Your task to perform on an android device: turn on priority inbox in the gmail app Image 0: 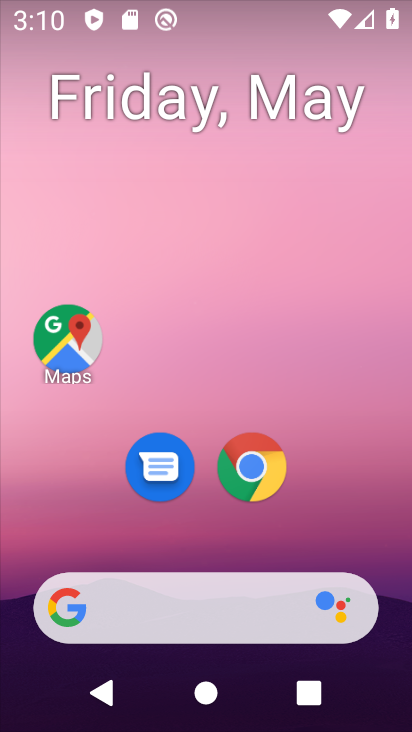
Step 0: drag from (359, 472) to (374, 117)
Your task to perform on an android device: turn on priority inbox in the gmail app Image 1: 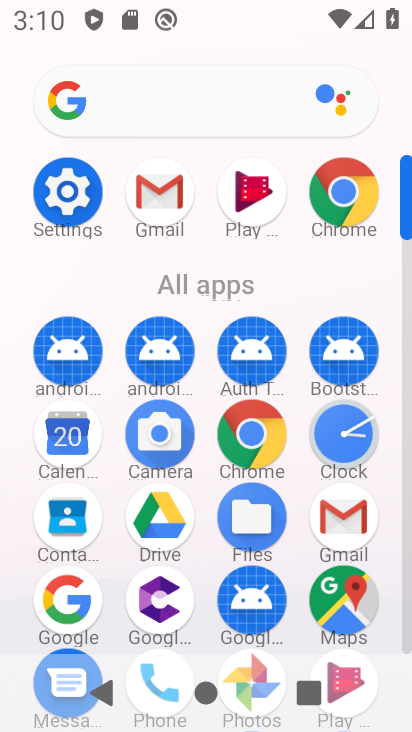
Step 1: click (162, 208)
Your task to perform on an android device: turn on priority inbox in the gmail app Image 2: 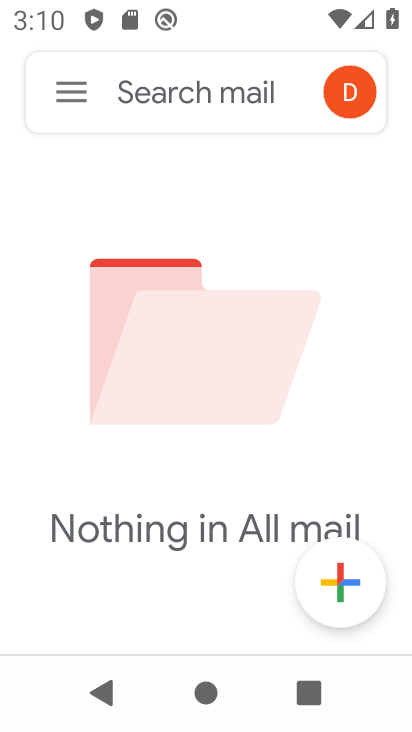
Step 2: click (74, 102)
Your task to perform on an android device: turn on priority inbox in the gmail app Image 3: 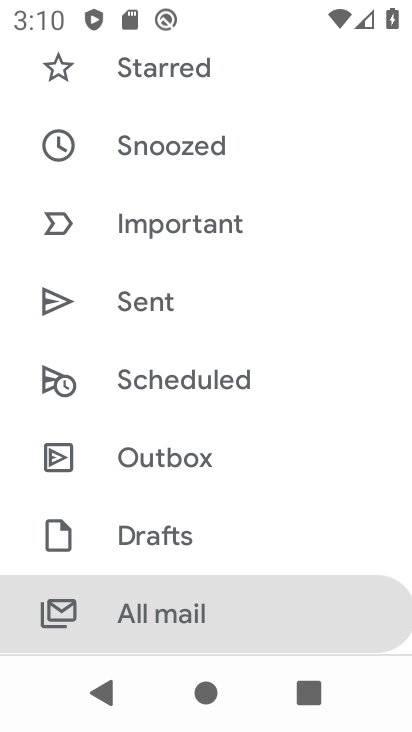
Step 3: drag from (86, 629) to (179, 142)
Your task to perform on an android device: turn on priority inbox in the gmail app Image 4: 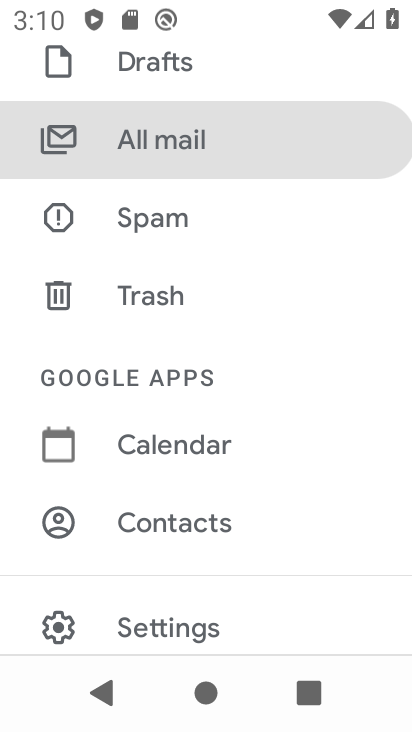
Step 4: click (155, 624)
Your task to perform on an android device: turn on priority inbox in the gmail app Image 5: 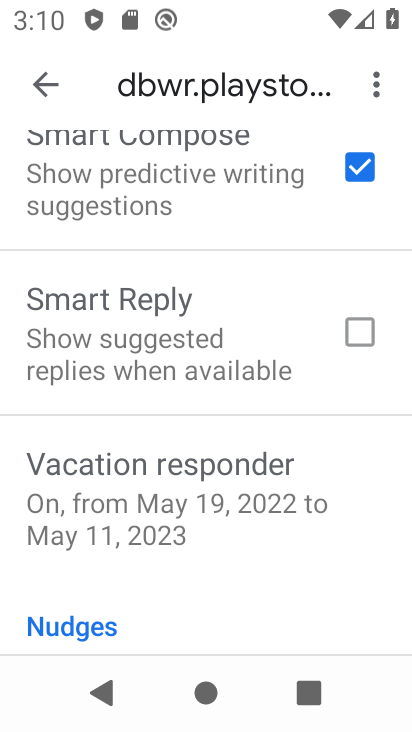
Step 5: drag from (155, 204) to (126, 624)
Your task to perform on an android device: turn on priority inbox in the gmail app Image 6: 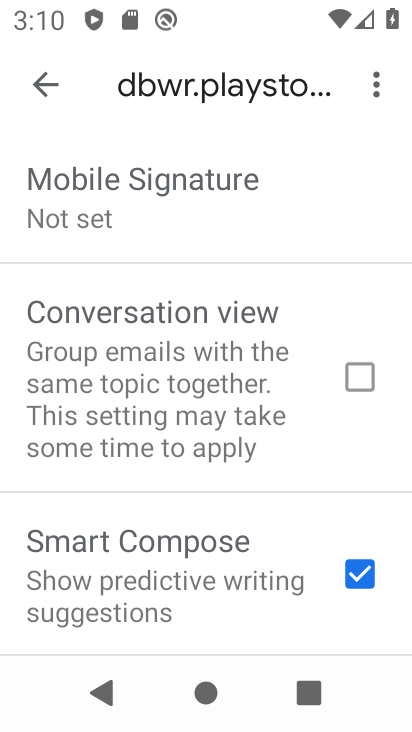
Step 6: drag from (152, 203) to (129, 604)
Your task to perform on an android device: turn on priority inbox in the gmail app Image 7: 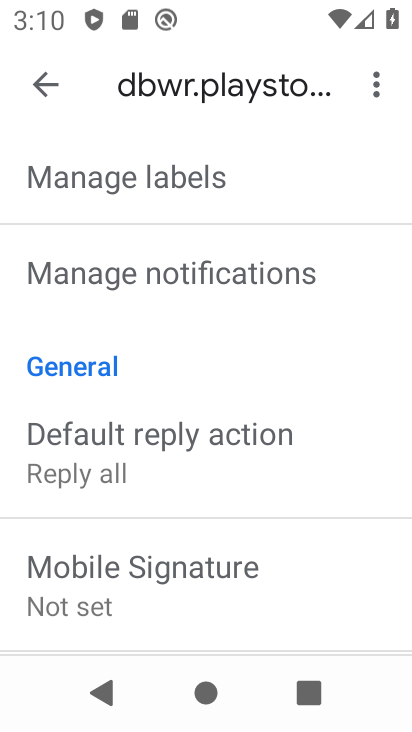
Step 7: drag from (176, 228) to (155, 662)
Your task to perform on an android device: turn on priority inbox in the gmail app Image 8: 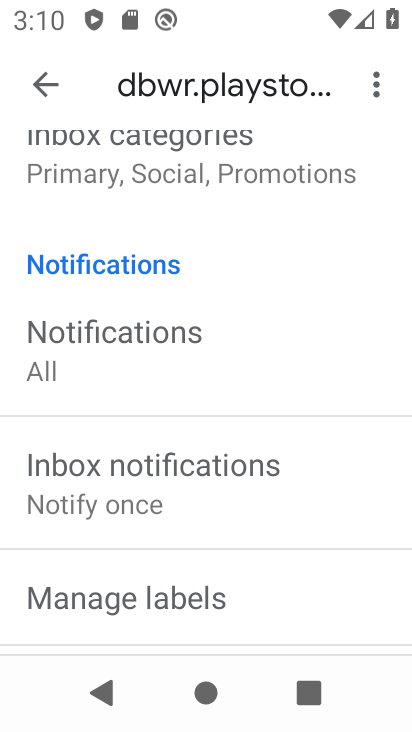
Step 8: drag from (196, 238) to (177, 572)
Your task to perform on an android device: turn on priority inbox in the gmail app Image 9: 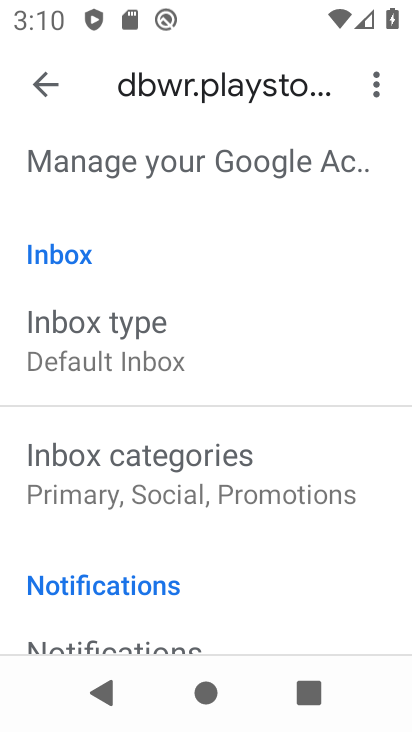
Step 9: click (115, 366)
Your task to perform on an android device: turn on priority inbox in the gmail app Image 10: 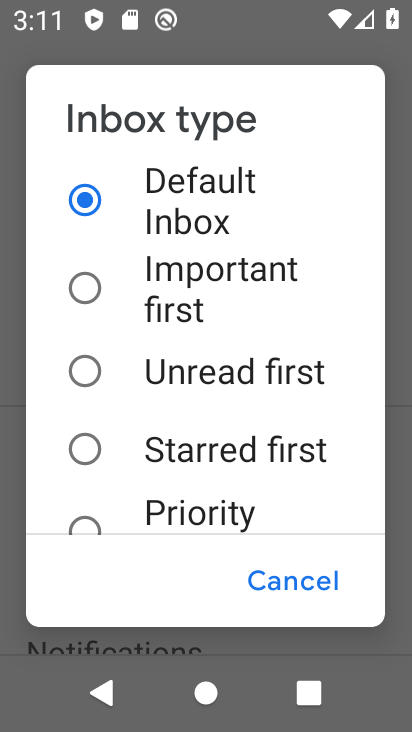
Step 10: click (81, 292)
Your task to perform on an android device: turn on priority inbox in the gmail app Image 11: 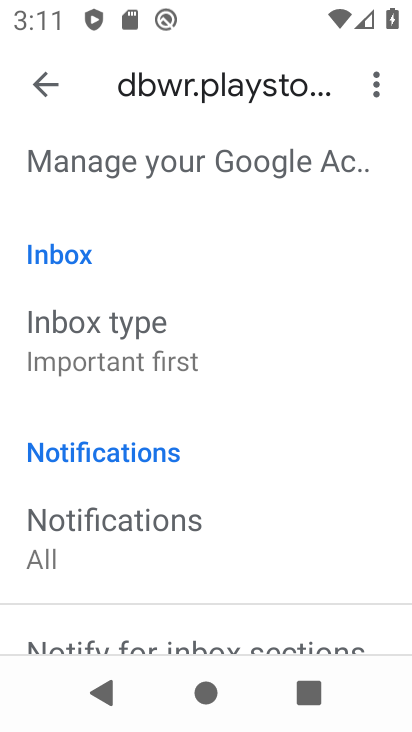
Step 11: click (121, 313)
Your task to perform on an android device: turn on priority inbox in the gmail app Image 12: 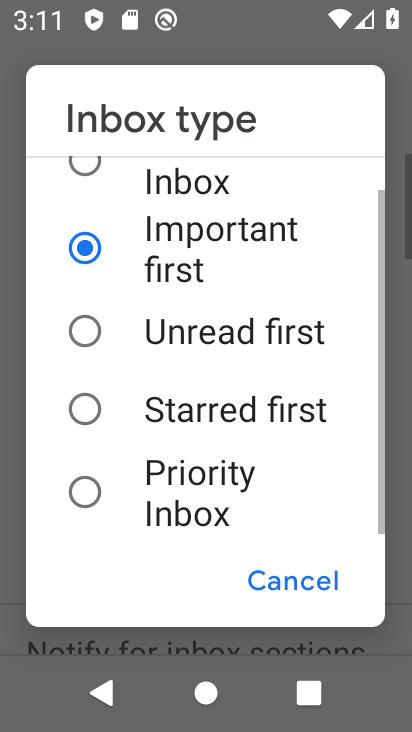
Step 12: click (125, 484)
Your task to perform on an android device: turn on priority inbox in the gmail app Image 13: 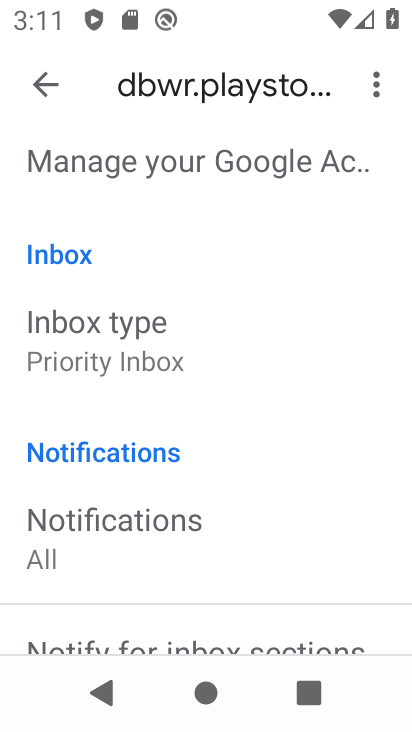
Step 13: task complete